Your task to perform on an android device: toggle wifi Image 0: 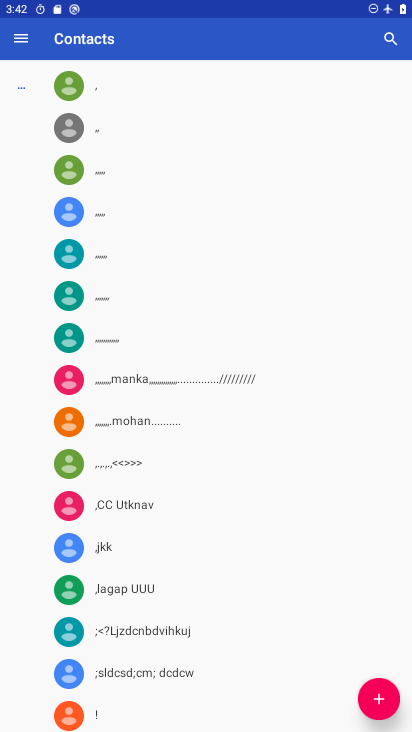
Step 0: press home button
Your task to perform on an android device: toggle wifi Image 1: 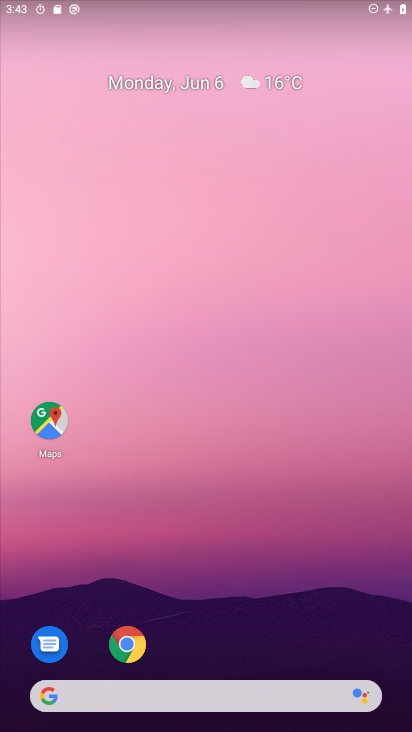
Step 1: drag from (179, 515) to (193, 26)
Your task to perform on an android device: toggle wifi Image 2: 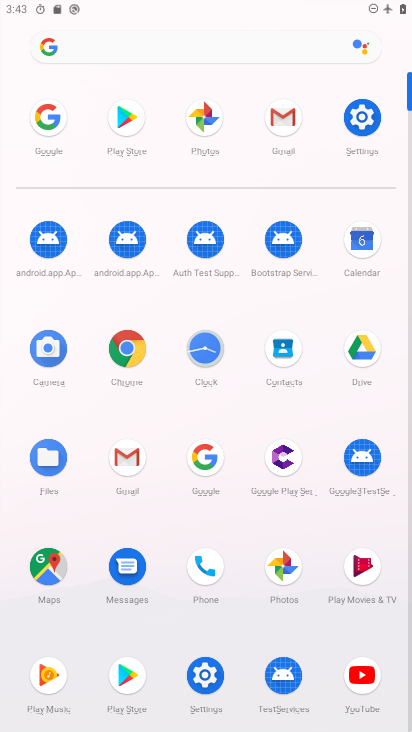
Step 2: click (363, 119)
Your task to perform on an android device: toggle wifi Image 3: 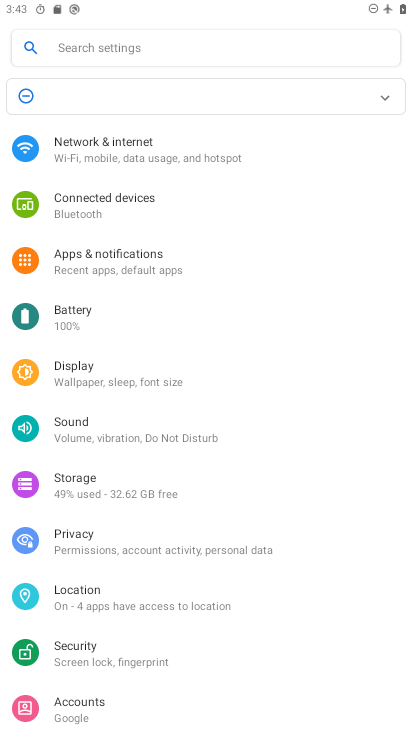
Step 3: click (149, 152)
Your task to perform on an android device: toggle wifi Image 4: 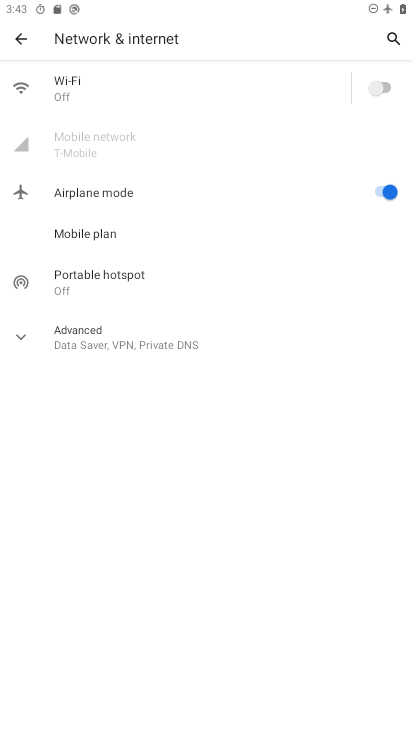
Step 4: click (375, 80)
Your task to perform on an android device: toggle wifi Image 5: 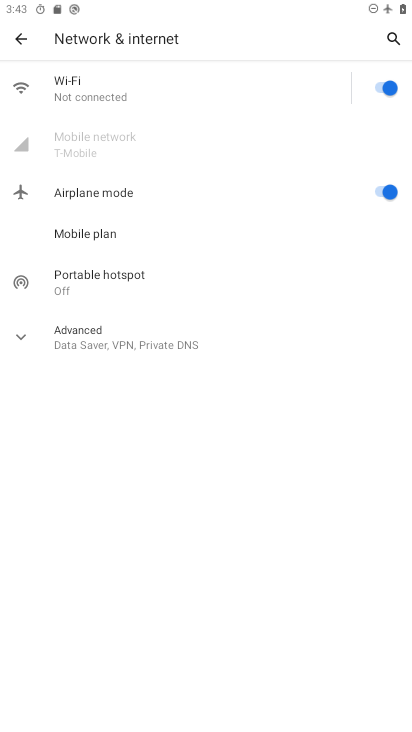
Step 5: task complete